Your task to perform on an android device: What's the weather today? Image 0: 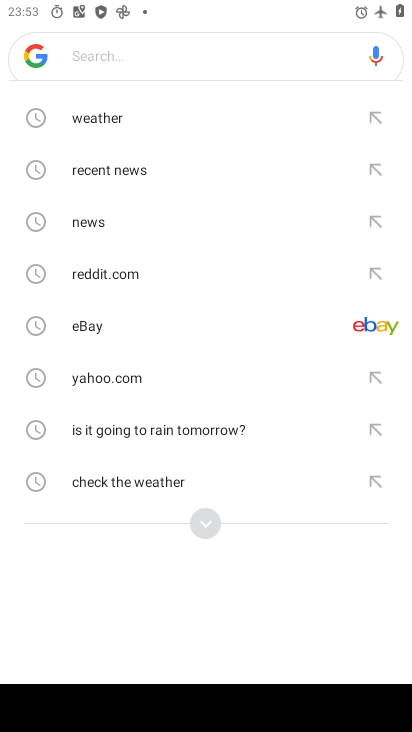
Step 0: click (124, 124)
Your task to perform on an android device: What's the weather today? Image 1: 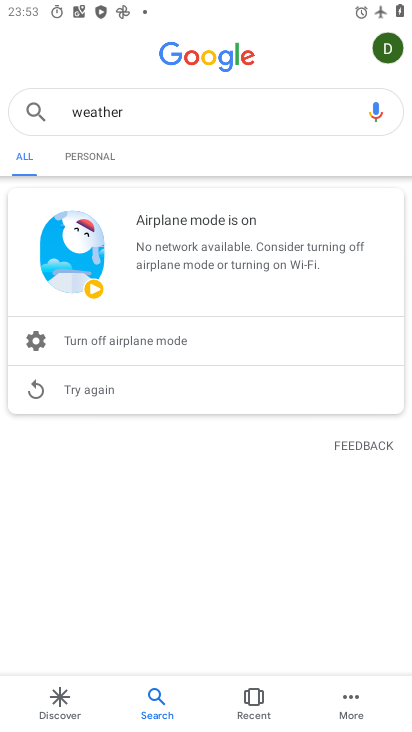
Step 1: task complete